Your task to perform on an android device: open a bookmark in the chrome app Image 0: 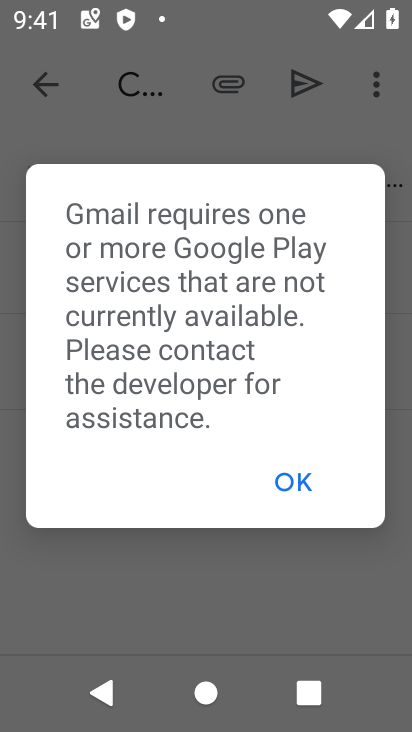
Step 0: press home button
Your task to perform on an android device: open a bookmark in the chrome app Image 1: 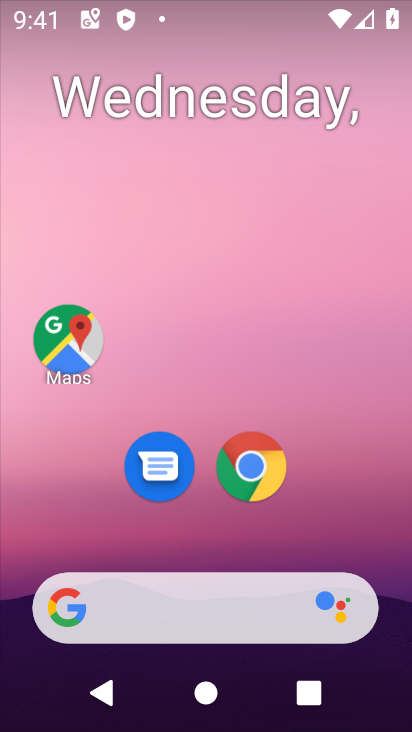
Step 1: click (265, 461)
Your task to perform on an android device: open a bookmark in the chrome app Image 2: 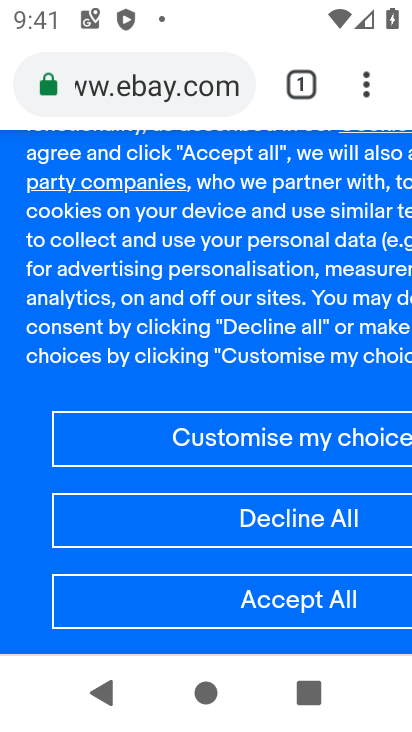
Step 2: click (364, 87)
Your task to perform on an android device: open a bookmark in the chrome app Image 3: 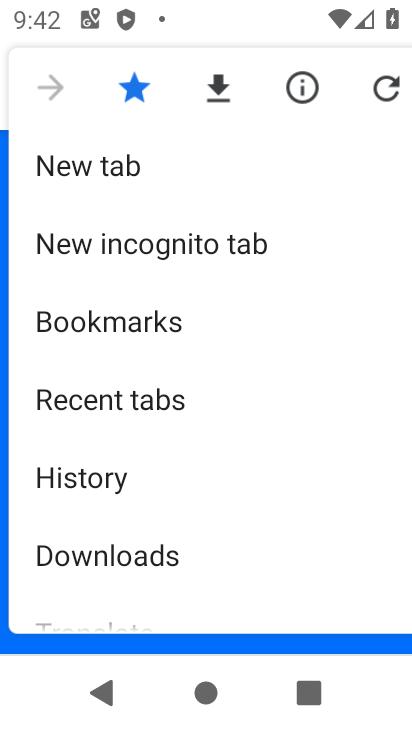
Step 3: click (77, 321)
Your task to perform on an android device: open a bookmark in the chrome app Image 4: 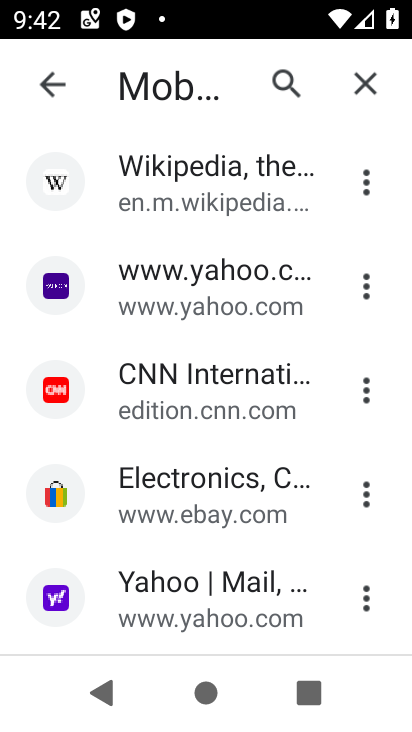
Step 4: task complete